Your task to perform on an android device: toggle location history Image 0: 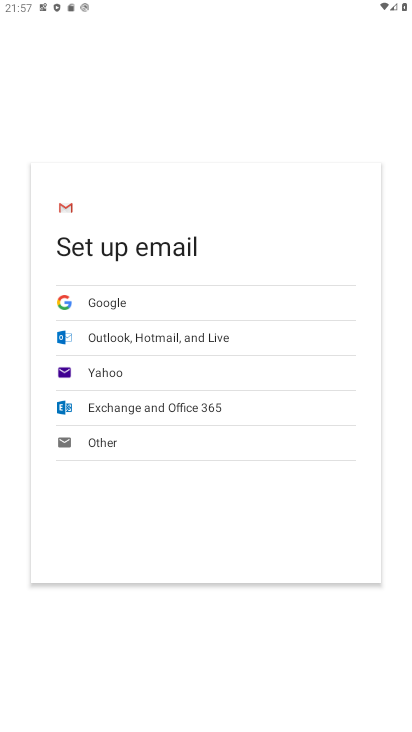
Step 0: press home button
Your task to perform on an android device: toggle location history Image 1: 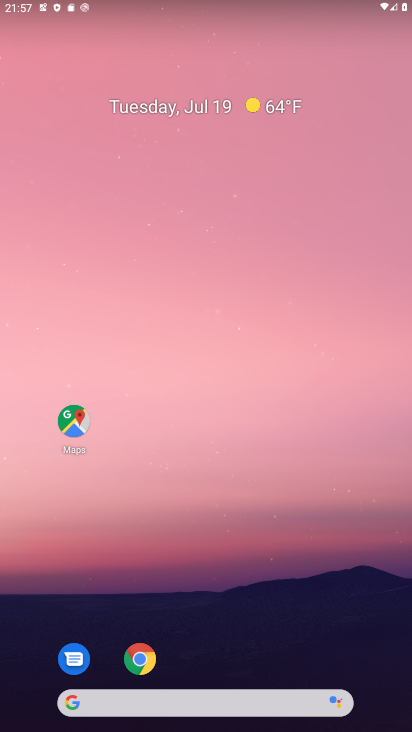
Step 1: drag from (260, 674) to (221, 30)
Your task to perform on an android device: toggle location history Image 2: 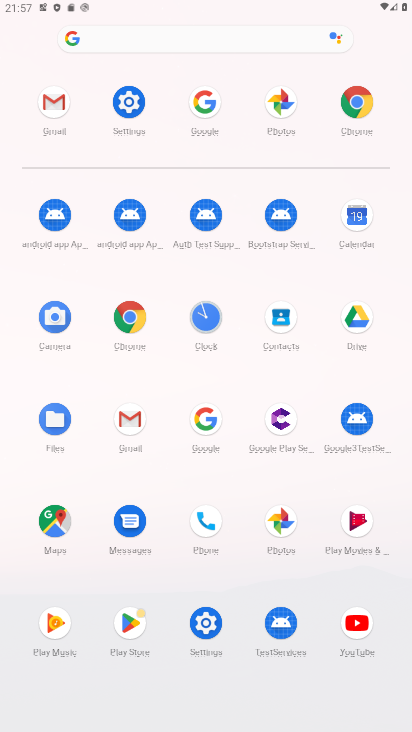
Step 2: click (126, 122)
Your task to perform on an android device: toggle location history Image 3: 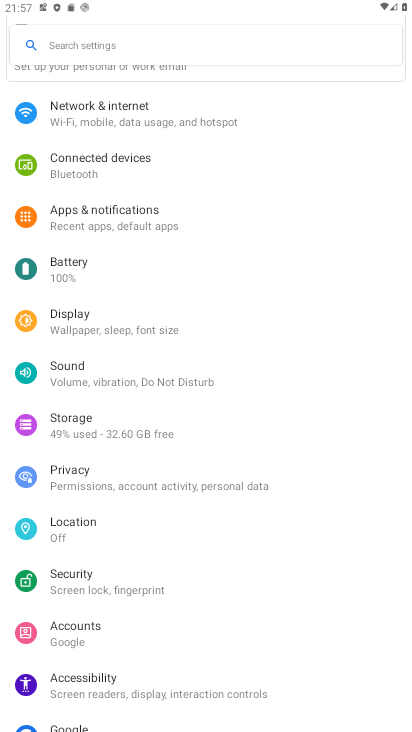
Step 3: click (66, 521)
Your task to perform on an android device: toggle location history Image 4: 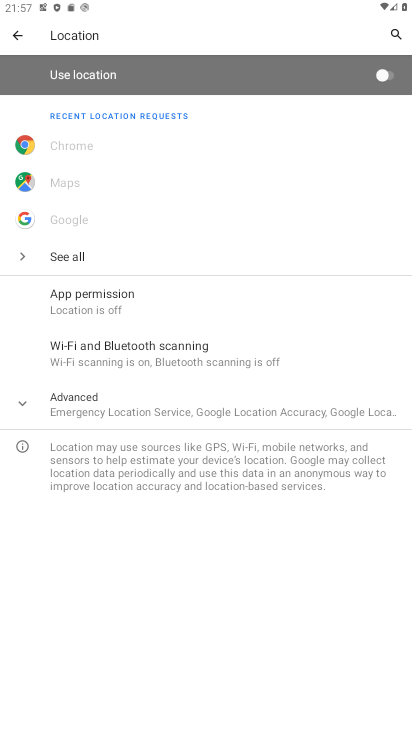
Step 4: click (158, 417)
Your task to perform on an android device: toggle location history Image 5: 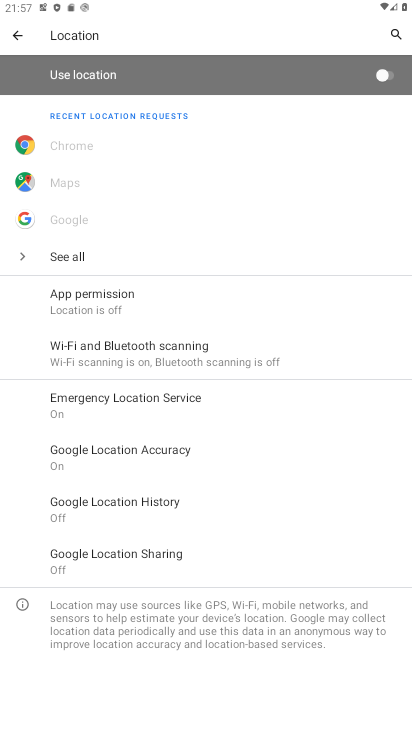
Step 5: click (99, 506)
Your task to perform on an android device: toggle location history Image 6: 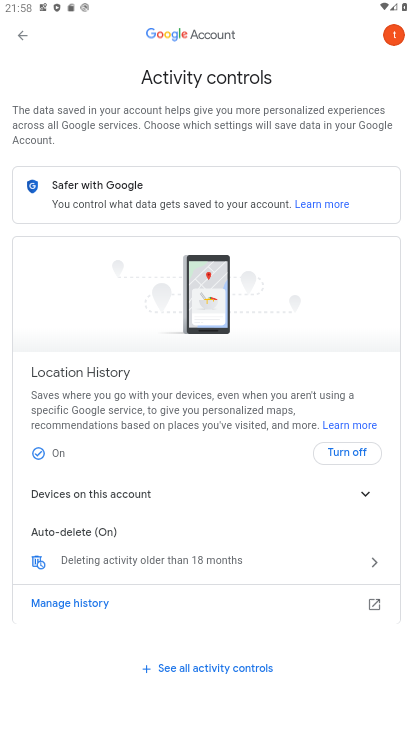
Step 6: click (343, 457)
Your task to perform on an android device: toggle location history Image 7: 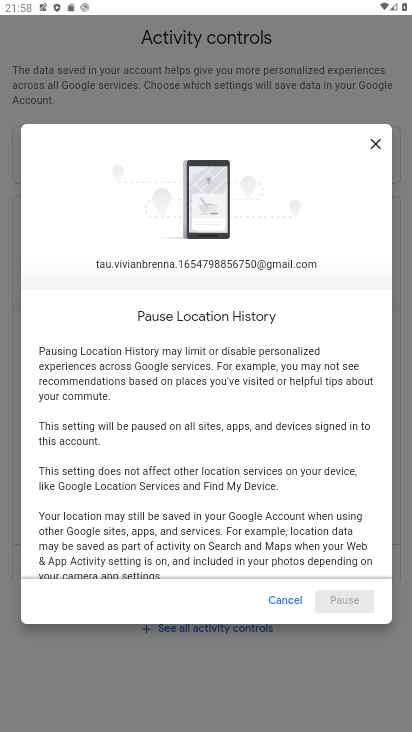
Step 7: drag from (264, 535) to (286, 89)
Your task to perform on an android device: toggle location history Image 8: 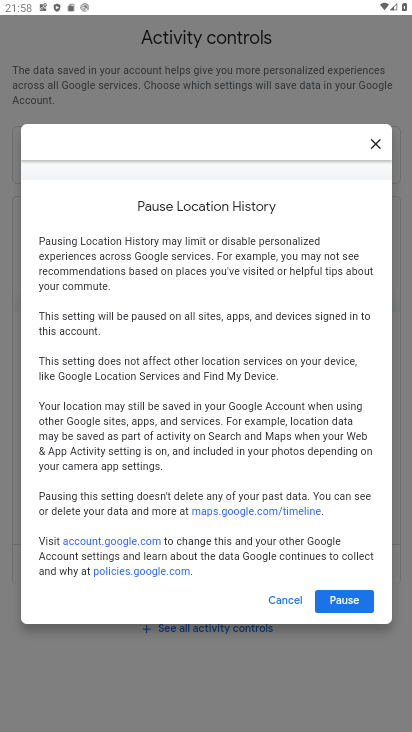
Step 8: drag from (165, 553) to (198, 260)
Your task to perform on an android device: toggle location history Image 9: 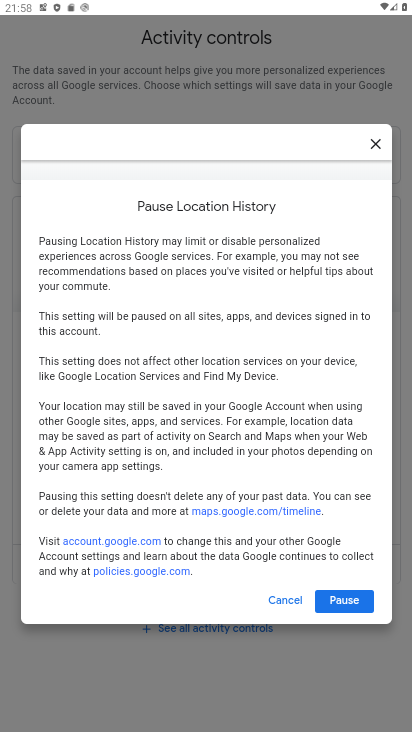
Step 9: click (338, 592)
Your task to perform on an android device: toggle location history Image 10: 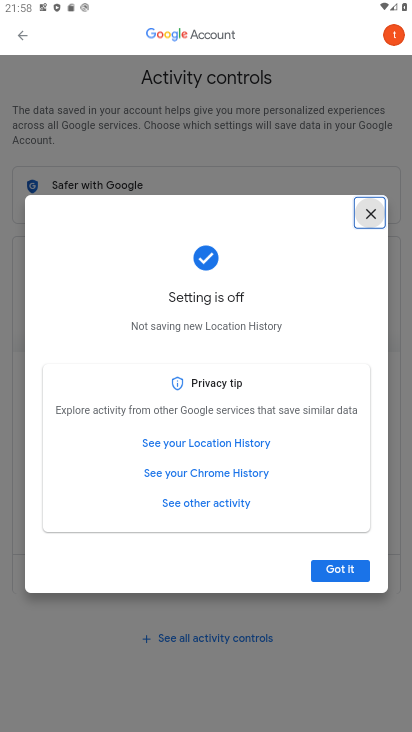
Step 10: click (331, 574)
Your task to perform on an android device: toggle location history Image 11: 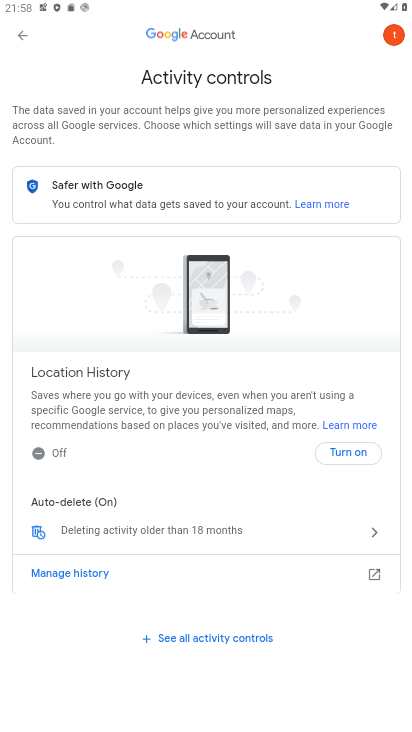
Step 11: task complete